Your task to perform on an android device: Check the weather Image 0: 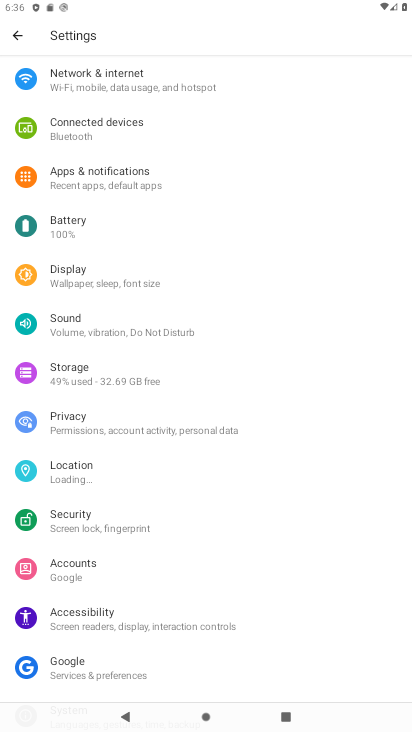
Step 0: press home button
Your task to perform on an android device: Check the weather Image 1: 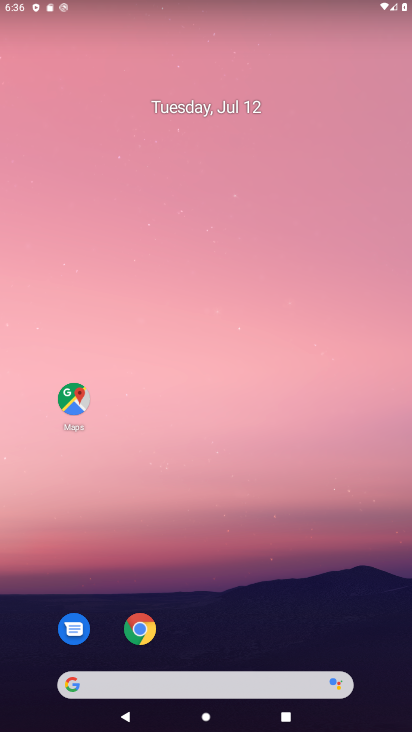
Step 1: click (222, 687)
Your task to perform on an android device: Check the weather Image 2: 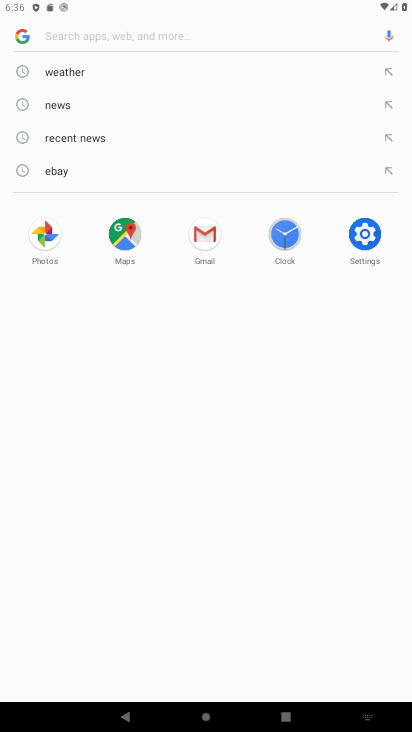
Step 2: click (59, 70)
Your task to perform on an android device: Check the weather Image 3: 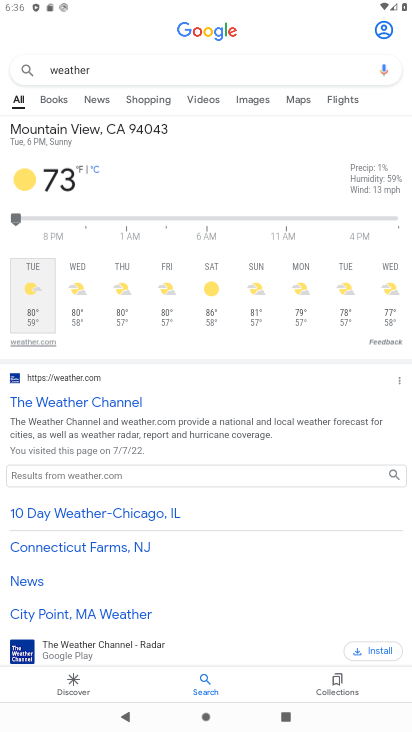
Step 3: task complete